Your task to perform on an android device: turn on javascript in the chrome app Image 0: 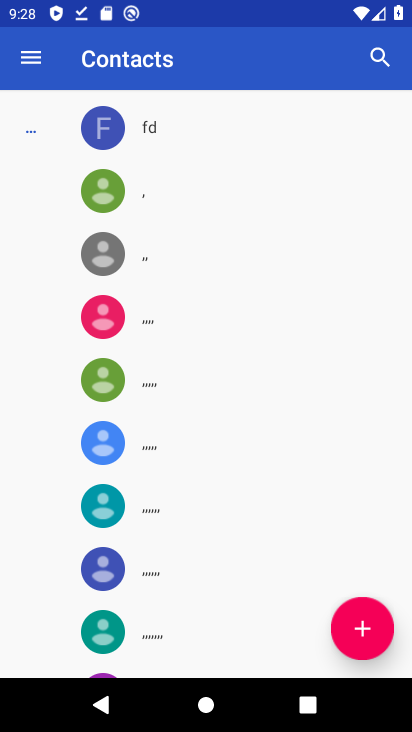
Step 0: press home button
Your task to perform on an android device: turn on javascript in the chrome app Image 1: 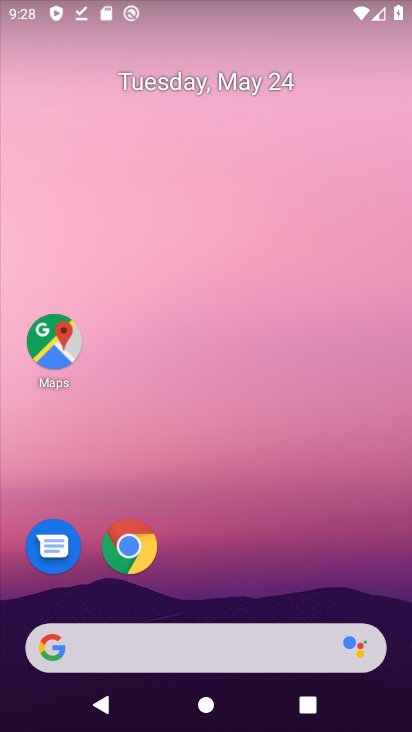
Step 1: click (137, 542)
Your task to perform on an android device: turn on javascript in the chrome app Image 2: 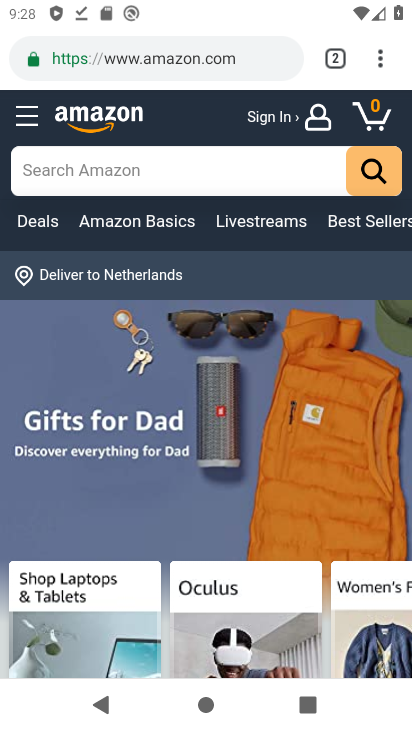
Step 2: click (383, 55)
Your task to perform on an android device: turn on javascript in the chrome app Image 3: 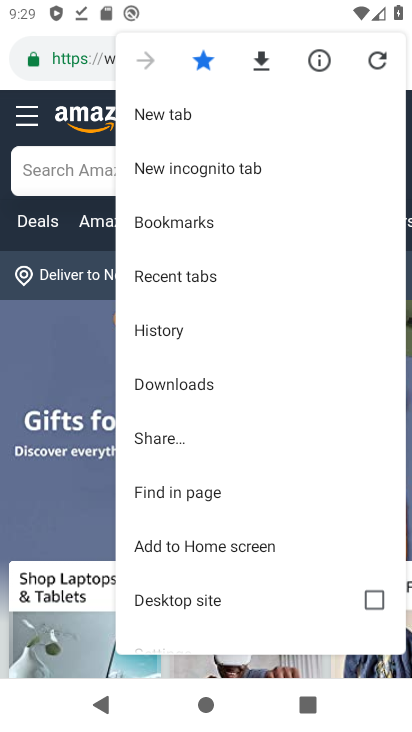
Step 3: click (184, 107)
Your task to perform on an android device: turn on javascript in the chrome app Image 4: 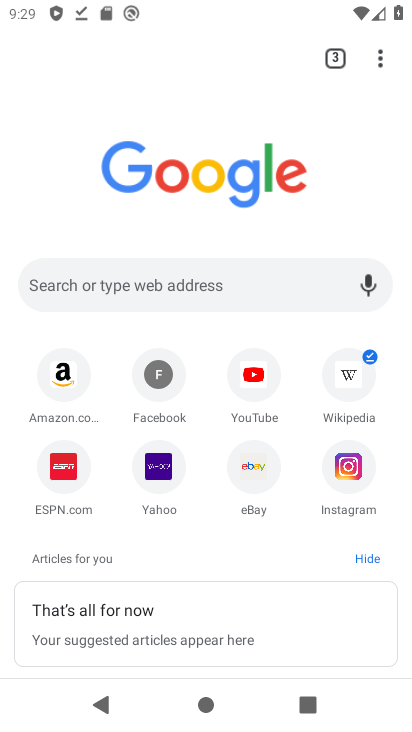
Step 4: click (378, 56)
Your task to perform on an android device: turn on javascript in the chrome app Image 5: 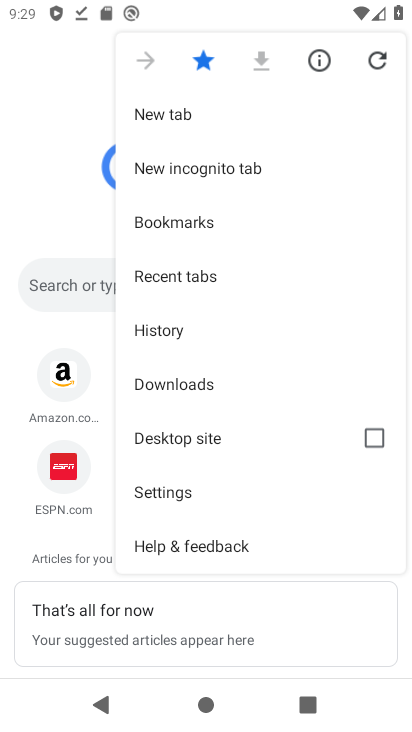
Step 5: click (169, 485)
Your task to perform on an android device: turn on javascript in the chrome app Image 6: 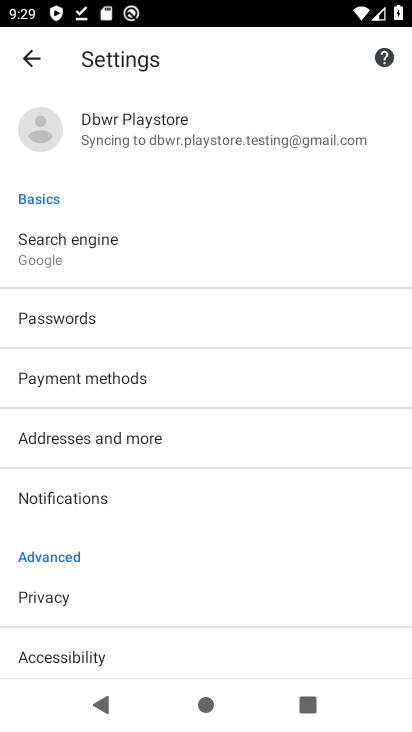
Step 6: drag from (246, 522) to (214, 208)
Your task to perform on an android device: turn on javascript in the chrome app Image 7: 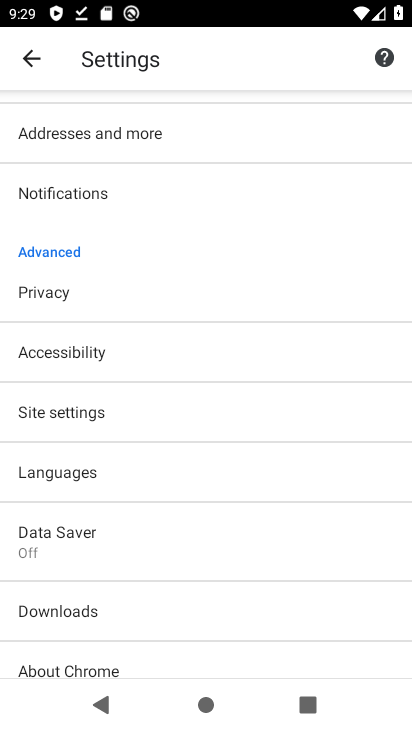
Step 7: click (61, 409)
Your task to perform on an android device: turn on javascript in the chrome app Image 8: 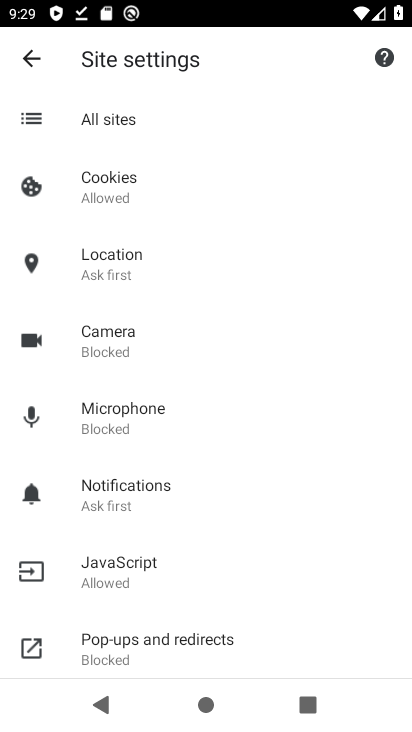
Step 8: click (128, 559)
Your task to perform on an android device: turn on javascript in the chrome app Image 9: 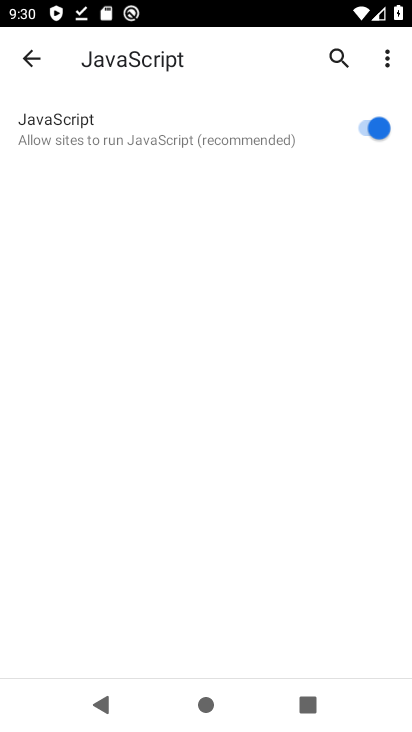
Step 9: task complete